Your task to perform on an android device: see sites visited before in the chrome app Image 0: 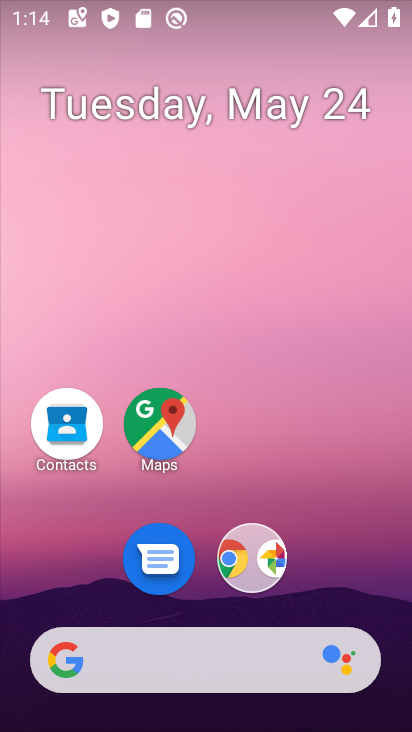
Step 0: drag from (339, 604) to (151, 31)
Your task to perform on an android device: see sites visited before in the chrome app Image 1: 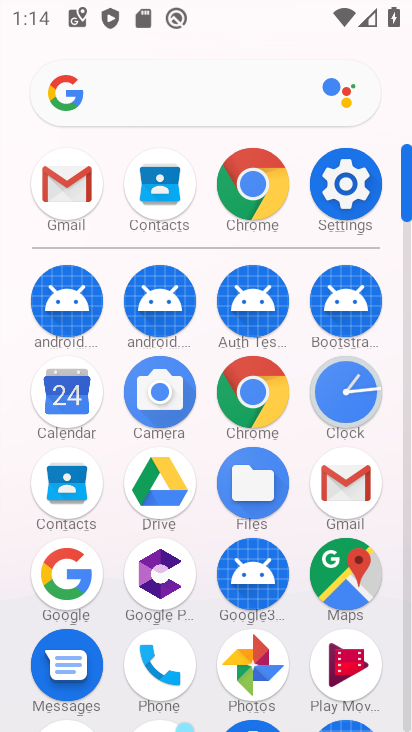
Step 1: click (247, 169)
Your task to perform on an android device: see sites visited before in the chrome app Image 2: 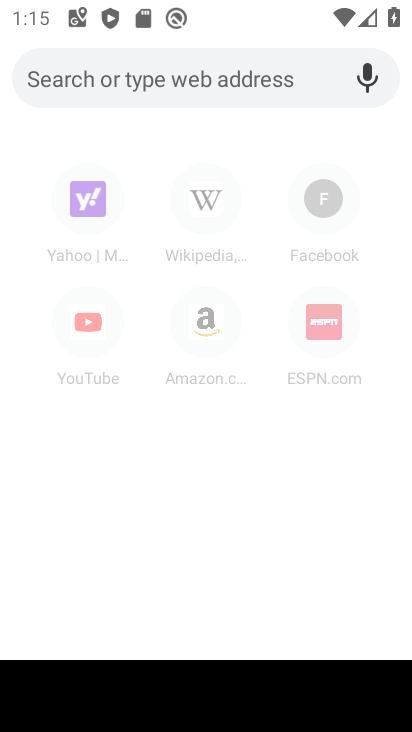
Step 2: press back button
Your task to perform on an android device: see sites visited before in the chrome app Image 3: 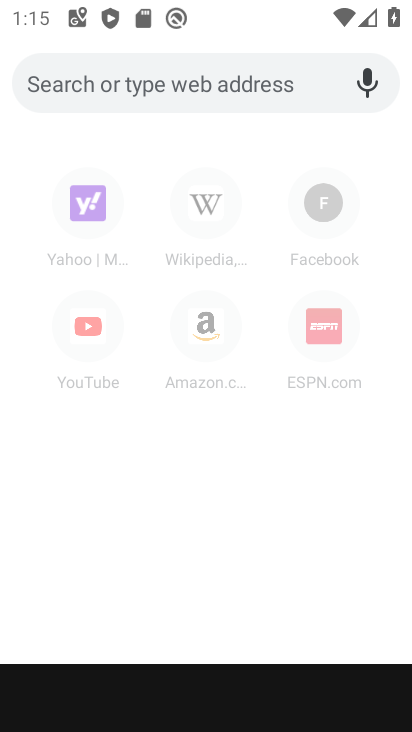
Step 3: press back button
Your task to perform on an android device: see sites visited before in the chrome app Image 4: 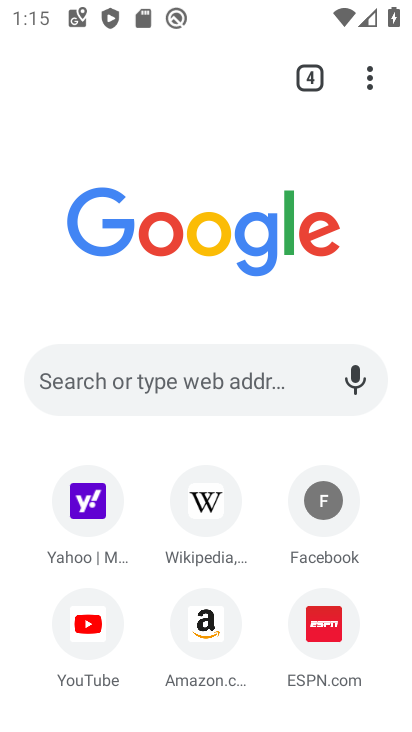
Step 4: press back button
Your task to perform on an android device: see sites visited before in the chrome app Image 5: 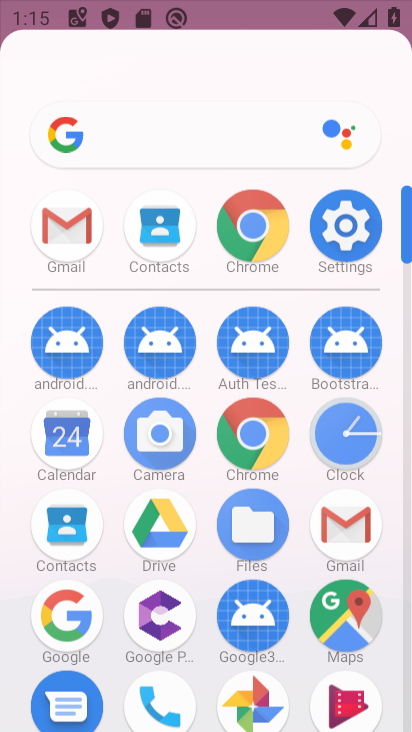
Step 5: press back button
Your task to perform on an android device: see sites visited before in the chrome app Image 6: 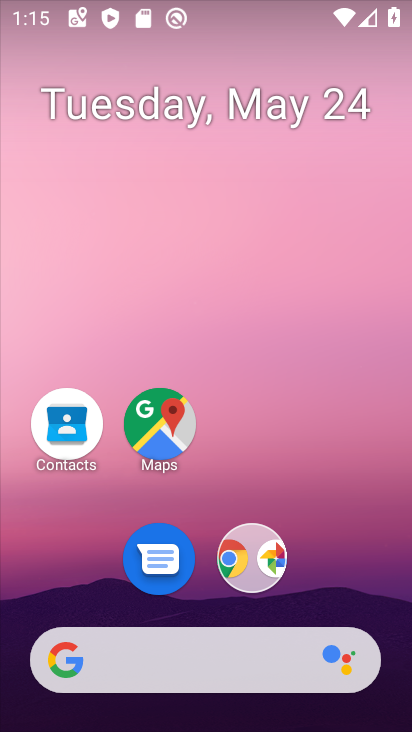
Step 6: drag from (315, 418) to (231, 1)
Your task to perform on an android device: see sites visited before in the chrome app Image 7: 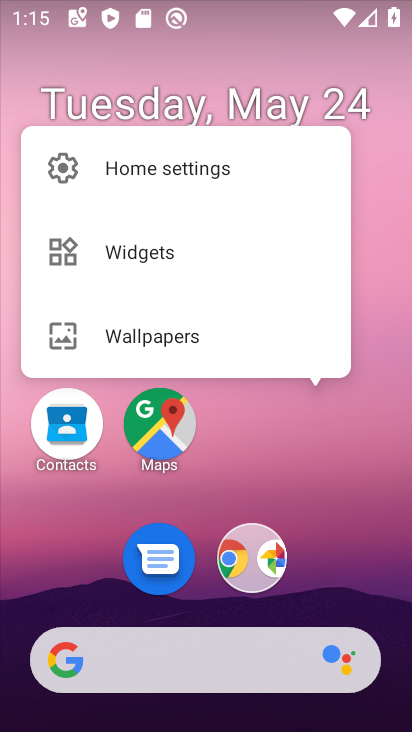
Step 7: click (233, 48)
Your task to perform on an android device: see sites visited before in the chrome app Image 8: 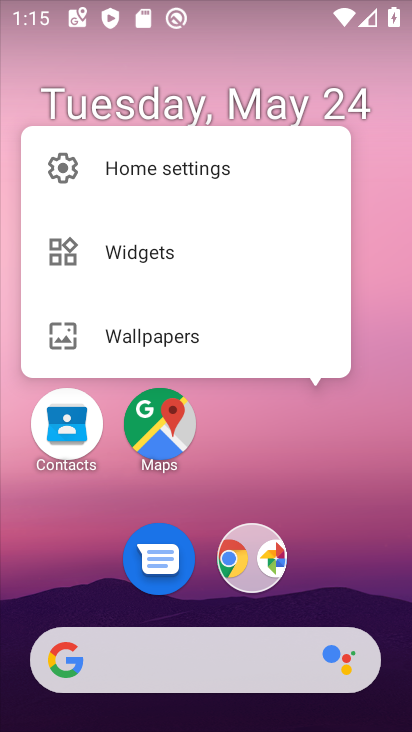
Step 8: drag from (290, 444) to (261, 13)
Your task to perform on an android device: see sites visited before in the chrome app Image 9: 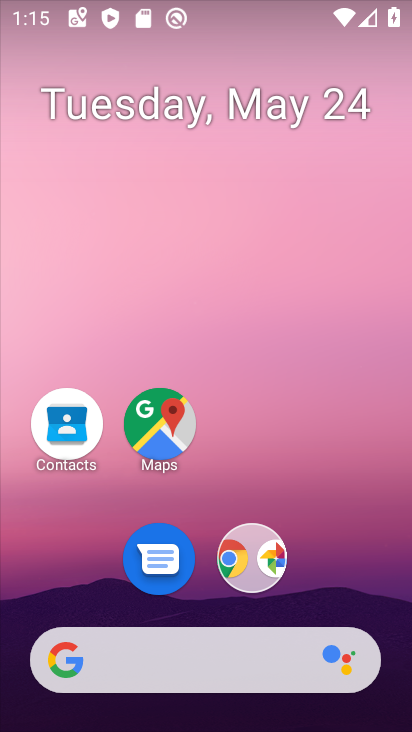
Step 9: drag from (367, 369) to (244, 16)
Your task to perform on an android device: see sites visited before in the chrome app Image 10: 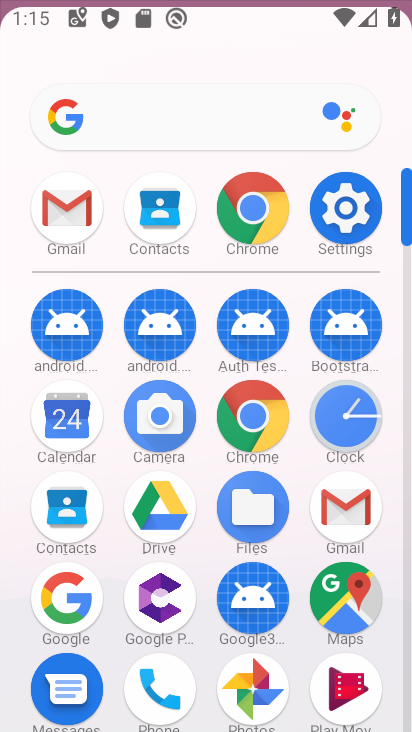
Step 10: drag from (263, 459) to (230, 54)
Your task to perform on an android device: see sites visited before in the chrome app Image 11: 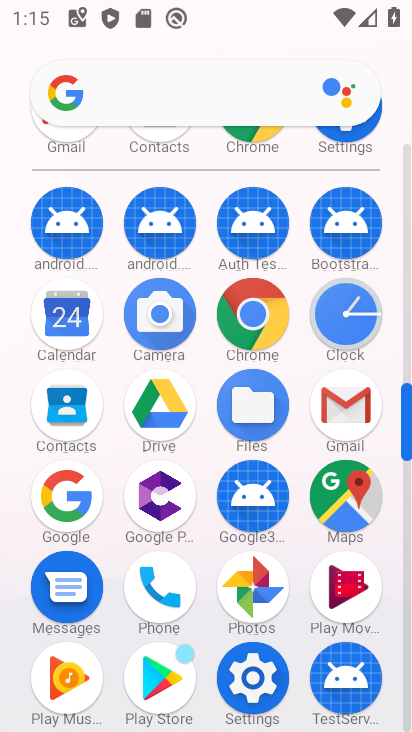
Step 11: press back button
Your task to perform on an android device: see sites visited before in the chrome app Image 12: 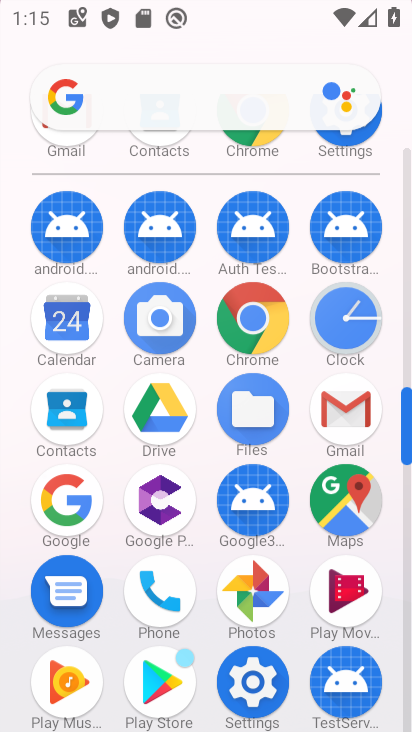
Step 12: press back button
Your task to perform on an android device: see sites visited before in the chrome app Image 13: 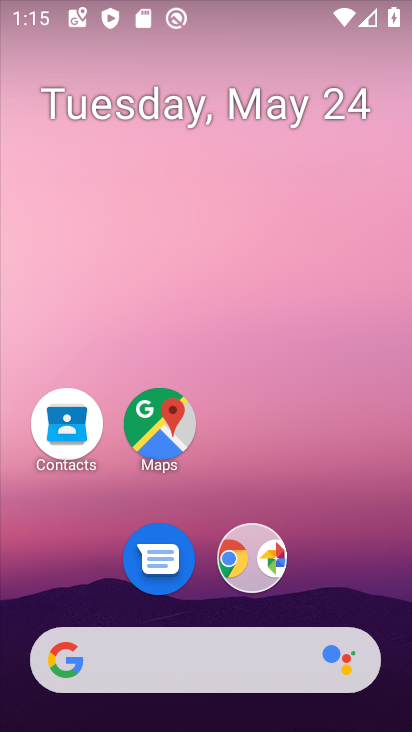
Step 13: press back button
Your task to perform on an android device: see sites visited before in the chrome app Image 14: 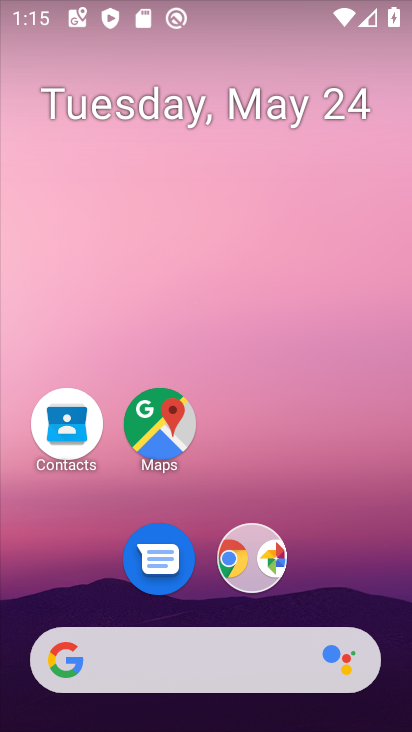
Step 14: drag from (320, 407) to (271, 82)
Your task to perform on an android device: see sites visited before in the chrome app Image 15: 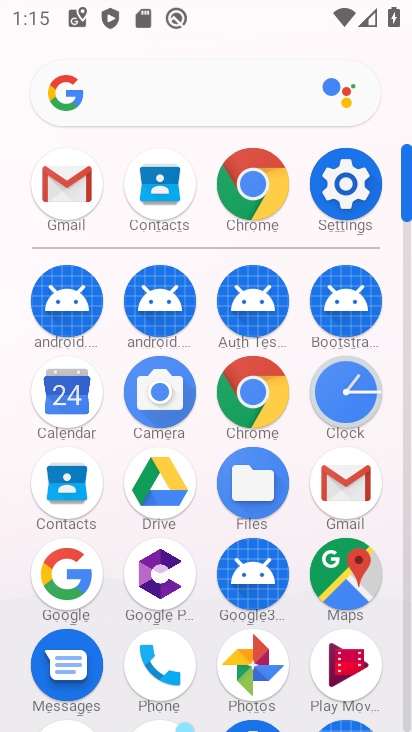
Step 15: press home button
Your task to perform on an android device: see sites visited before in the chrome app Image 16: 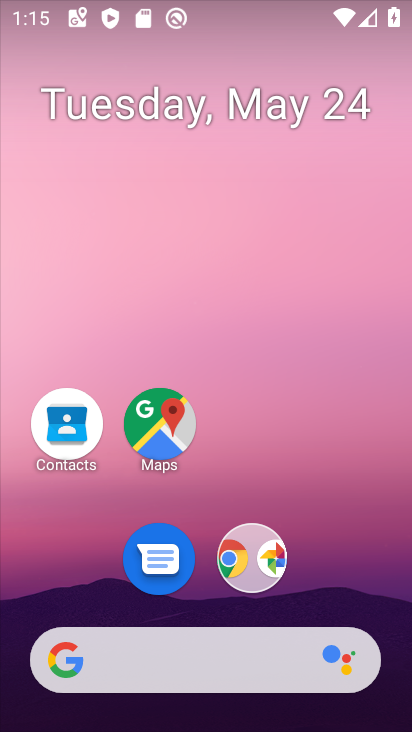
Step 16: drag from (267, 525) to (162, 0)
Your task to perform on an android device: see sites visited before in the chrome app Image 17: 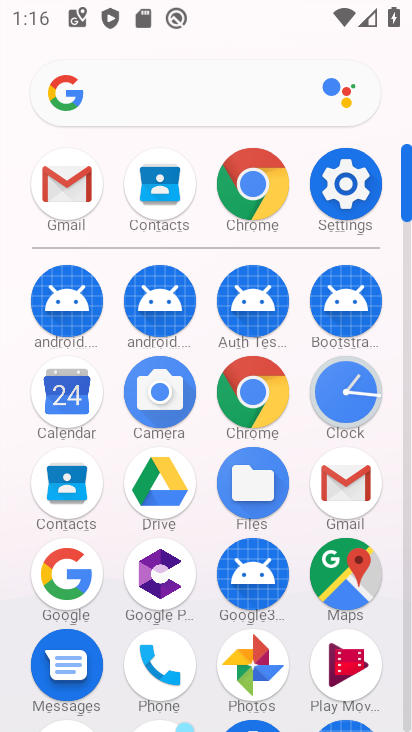
Step 17: click (256, 189)
Your task to perform on an android device: see sites visited before in the chrome app Image 18: 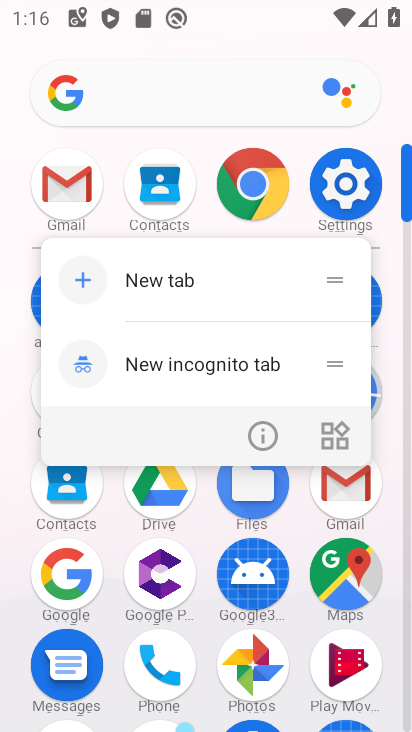
Step 18: click (149, 293)
Your task to perform on an android device: see sites visited before in the chrome app Image 19: 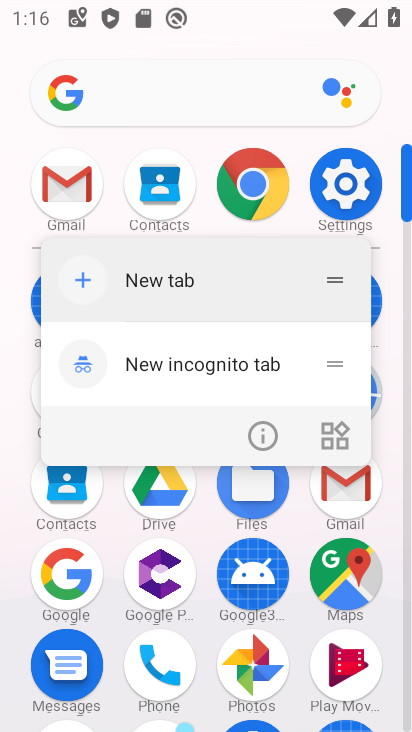
Step 19: click (149, 293)
Your task to perform on an android device: see sites visited before in the chrome app Image 20: 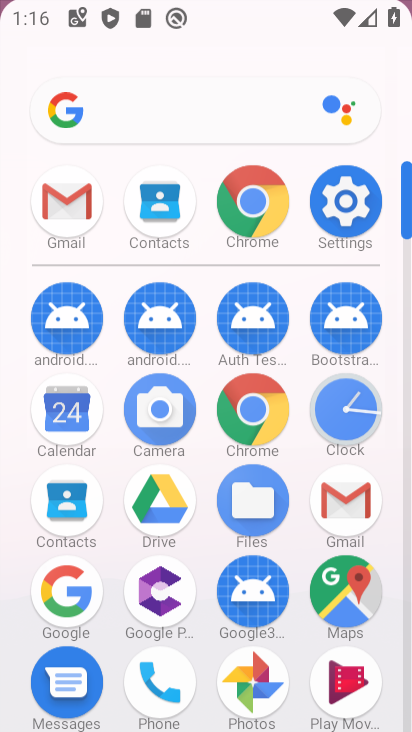
Step 20: click (149, 292)
Your task to perform on an android device: see sites visited before in the chrome app Image 21: 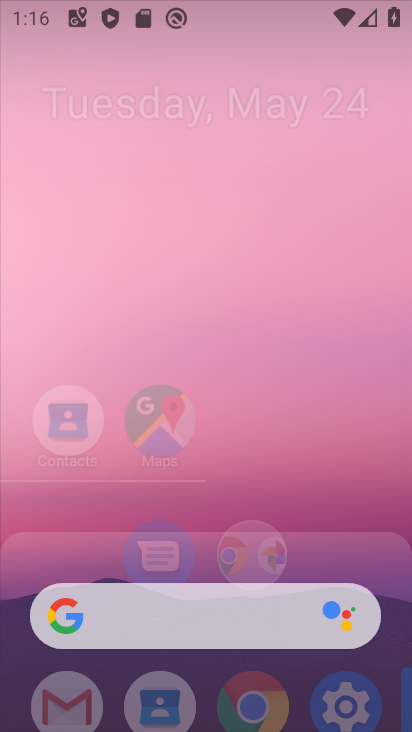
Step 21: click (158, 295)
Your task to perform on an android device: see sites visited before in the chrome app Image 22: 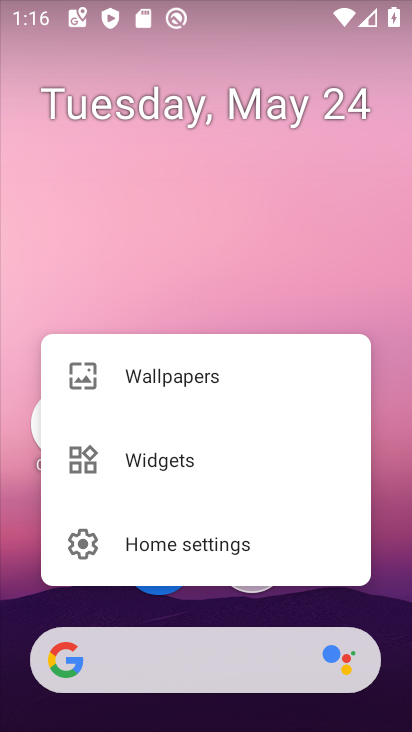
Step 22: task complete